Your task to perform on an android device: empty trash in the gmail app Image 0: 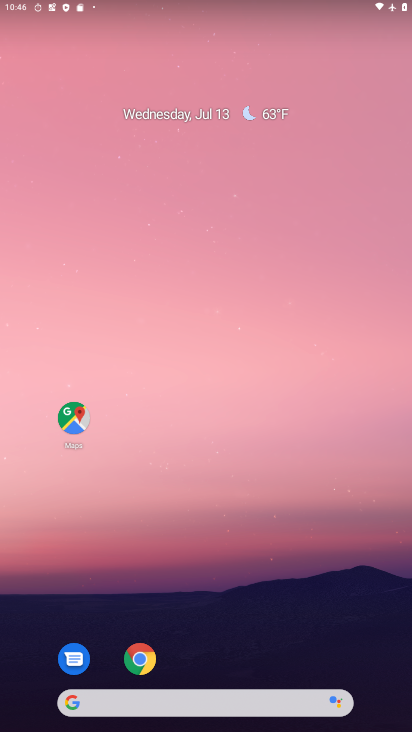
Step 0: drag from (367, 646) to (364, 163)
Your task to perform on an android device: empty trash in the gmail app Image 1: 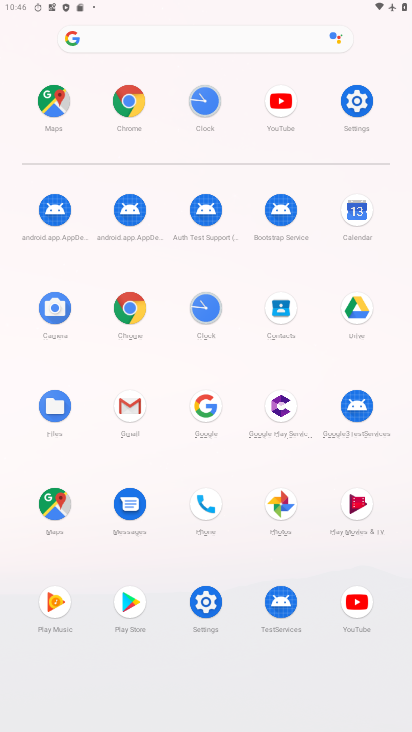
Step 1: click (126, 401)
Your task to perform on an android device: empty trash in the gmail app Image 2: 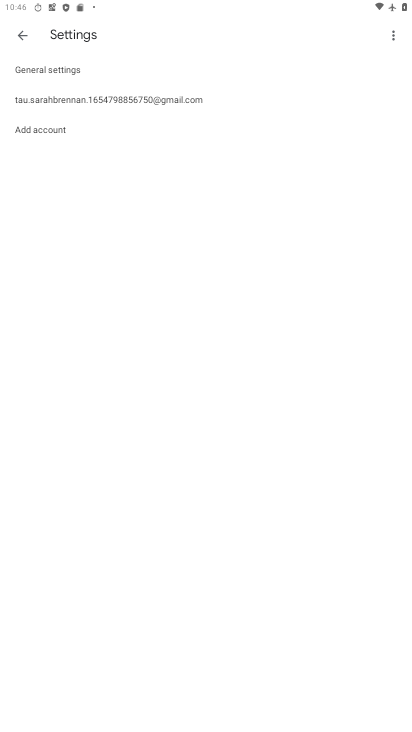
Step 2: click (18, 36)
Your task to perform on an android device: empty trash in the gmail app Image 3: 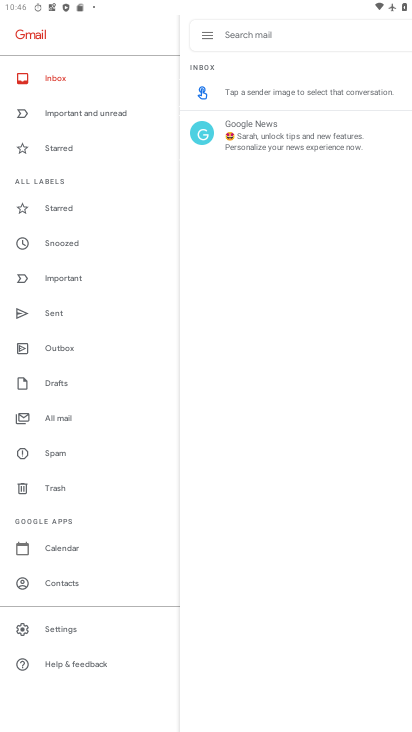
Step 3: click (58, 488)
Your task to perform on an android device: empty trash in the gmail app Image 4: 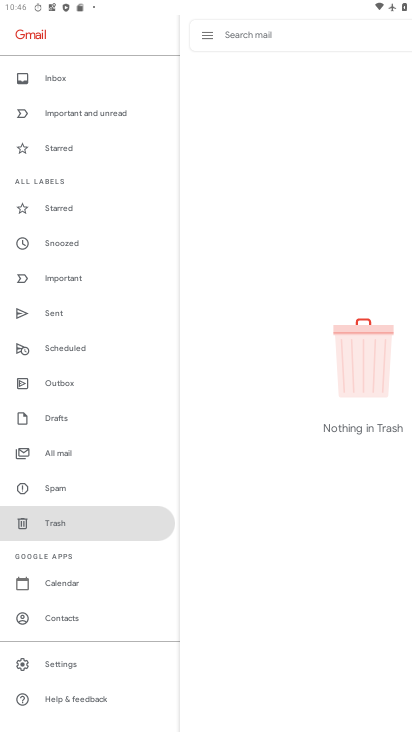
Step 4: task complete